Your task to perform on an android device: Open location settings Image 0: 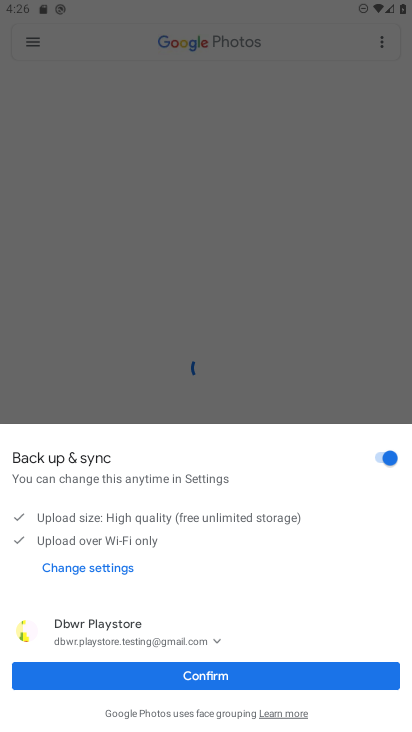
Step 0: press home button
Your task to perform on an android device: Open location settings Image 1: 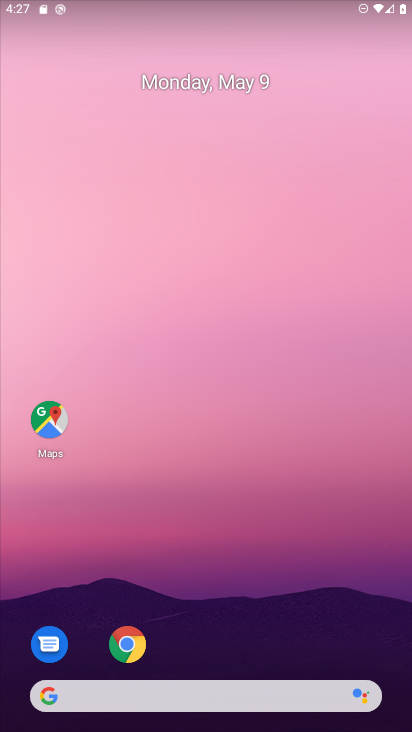
Step 1: drag from (294, 553) to (264, 122)
Your task to perform on an android device: Open location settings Image 2: 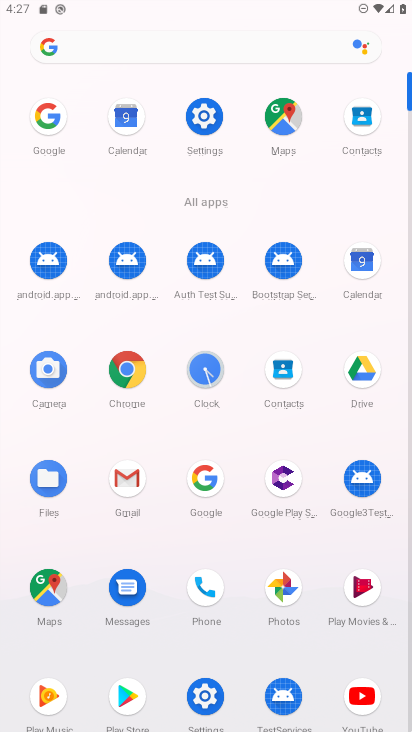
Step 2: click (219, 142)
Your task to perform on an android device: Open location settings Image 3: 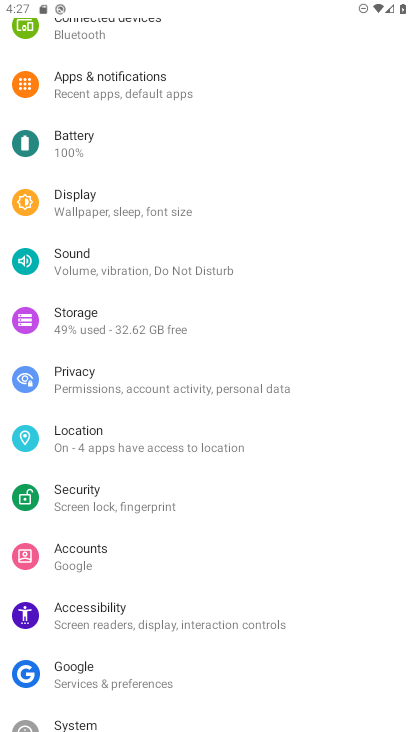
Step 3: click (116, 427)
Your task to perform on an android device: Open location settings Image 4: 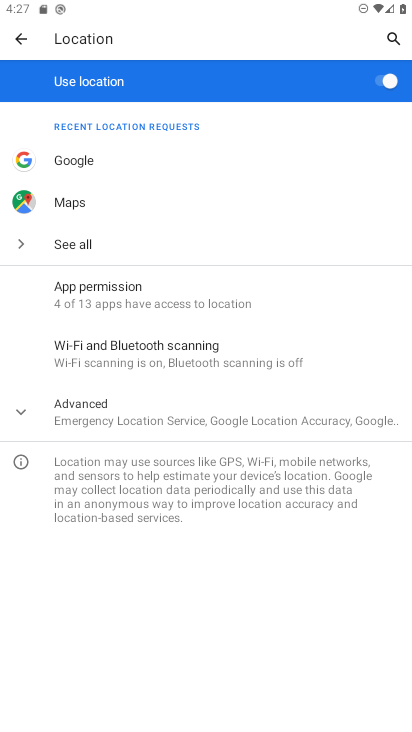
Step 4: task complete